Your task to perform on an android device: turn on priority inbox in the gmail app Image 0: 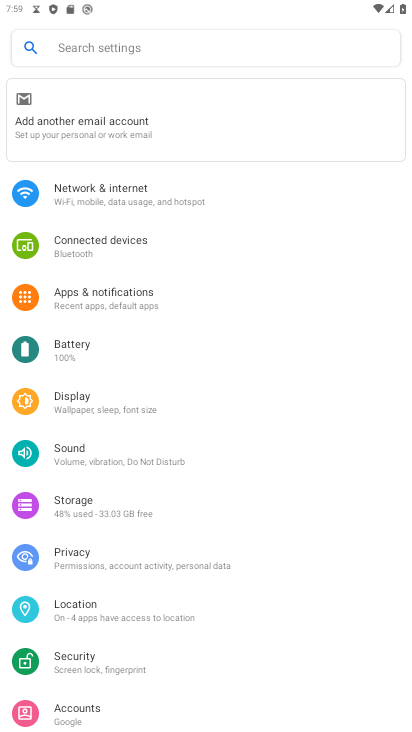
Step 0: press home button
Your task to perform on an android device: turn on priority inbox in the gmail app Image 1: 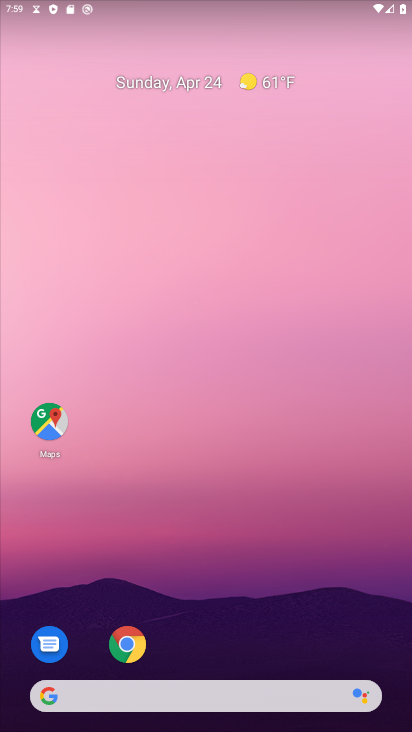
Step 1: drag from (216, 690) to (196, 215)
Your task to perform on an android device: turn on priority inbox in the gmail app Image 2: 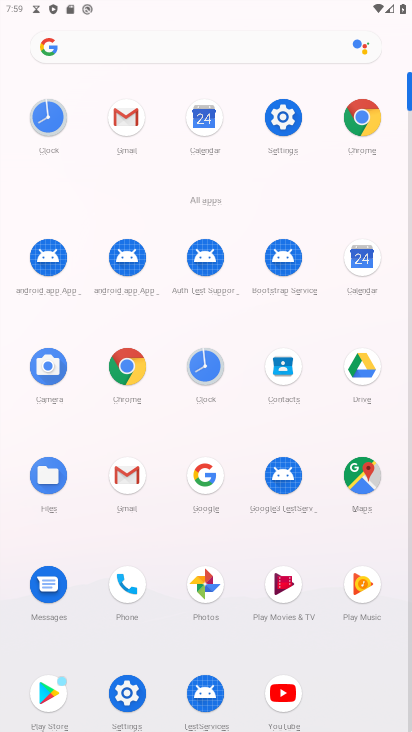
Step 2: click (117, 474)
Your task to perform on an android device: turn on priority inbox in the gmail app Image 3: 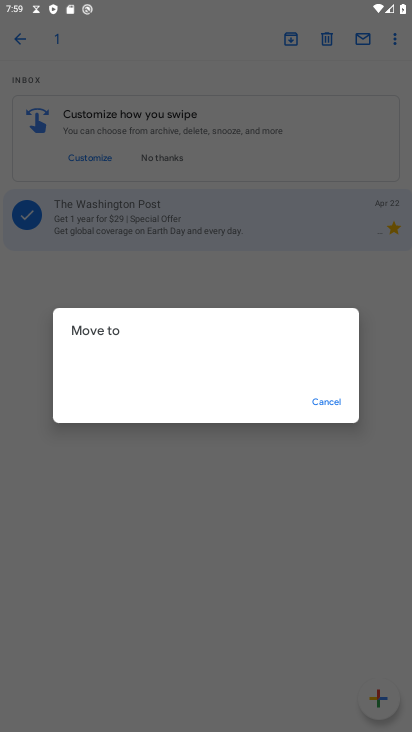
Step 3: click (317, 413)
Your task to perform on an android device: turn on priority inbox in the gmail app Image 4: 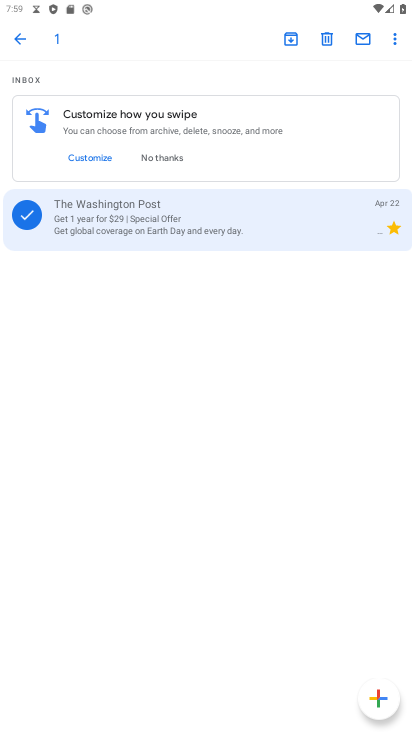
Step 4: click (13, 36)
Your task to perform on an android device: turn on priority inbox in the gmail app Image 5: 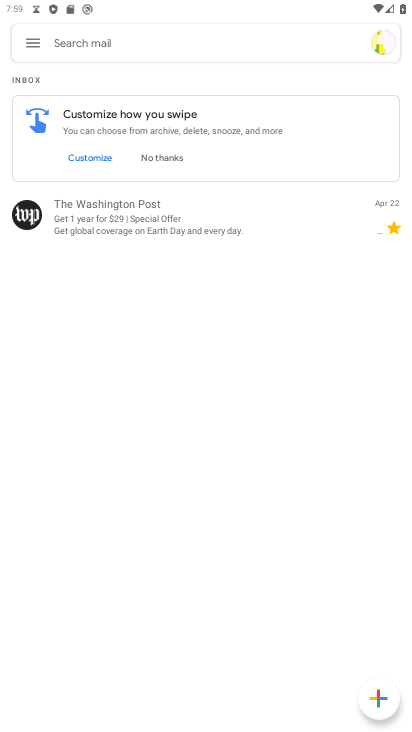
Step 5: click (31, 41)
Your task to perform on an android device: turn on priority inbox in the gmail app Image 6: 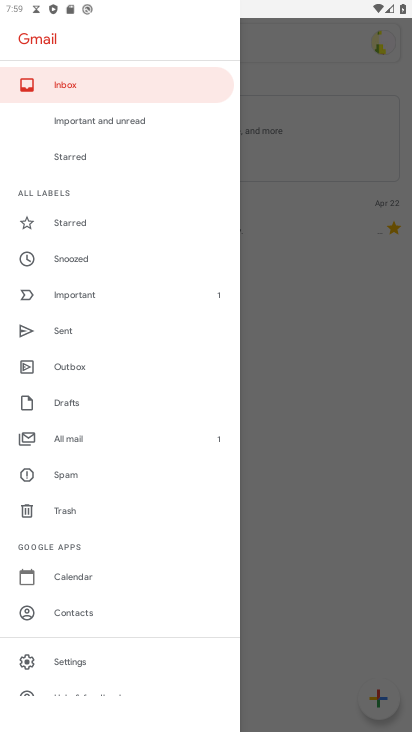
Step 6: click (85, 661)
Your task to perform on an android device: turn on priority inbox in the gmail app Image 7: 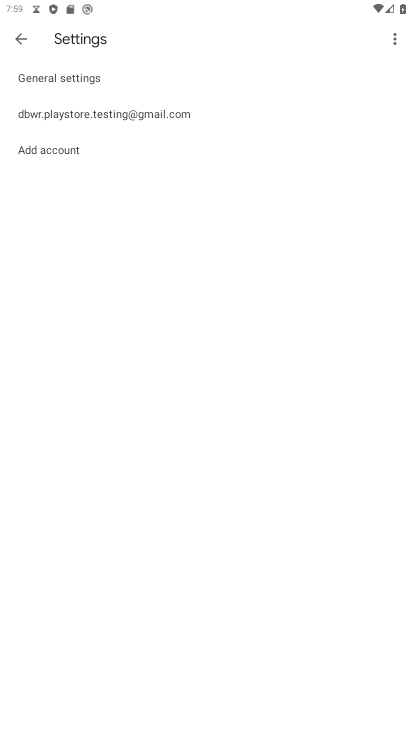
Step 7: click (111, 115)
Your task to perform on an android device: turn on priority inbox in the gmail app Image 8: 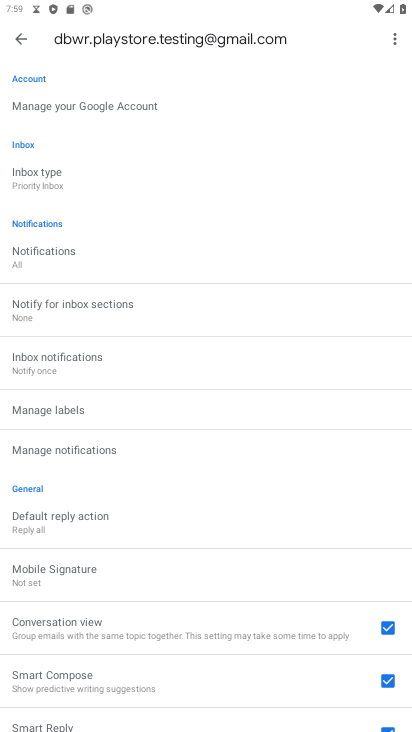
Step 8: click (80, 173)
Your task to perform on an android device: turn on priority inbox in the gmail app Image 9: 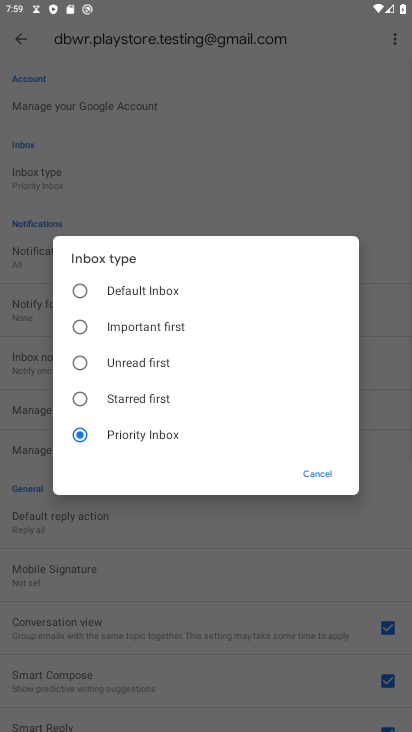
Step 9: click (113, 435)
Your task to perform on an android device: turn on priority inbox in the gmail app Image 10: 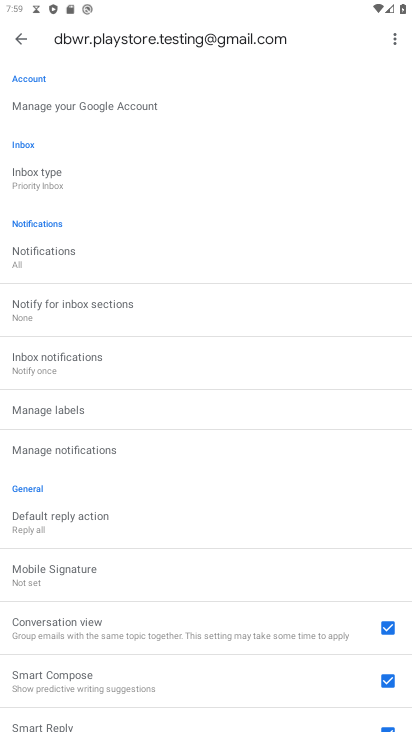
Step 10: task complete